Your task to perform on an android device: Open accessibility settings Image 0: 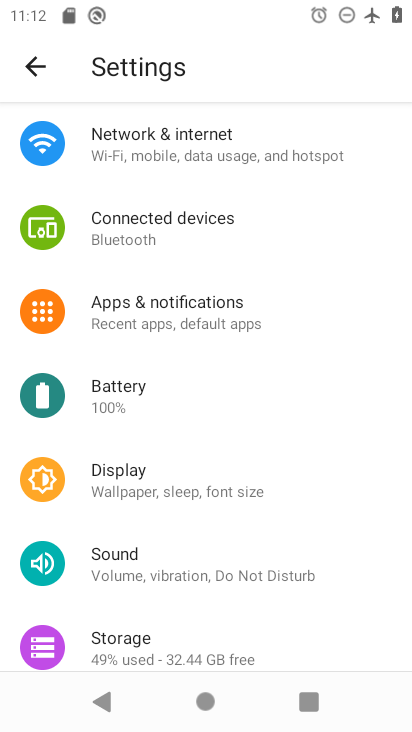
Step 0: drag from (150, 609) to (184, 208)
Your task to perform on an android device: Open accessibility settings Image 1: 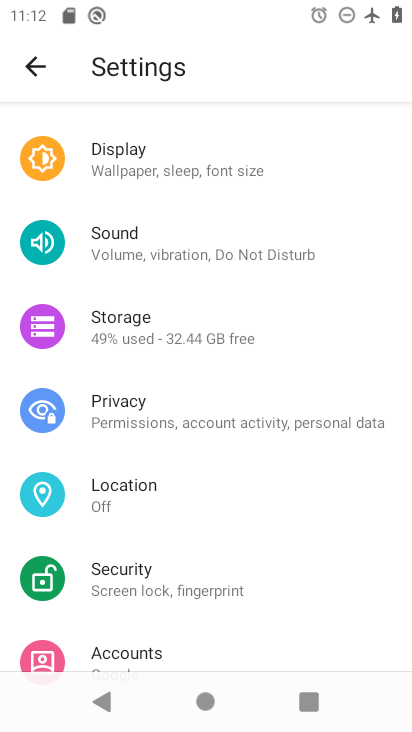
Step 1: drag from (198, 584) to (181, 226)
Your task to perform on an android device: Open accessibility settings Image 2: 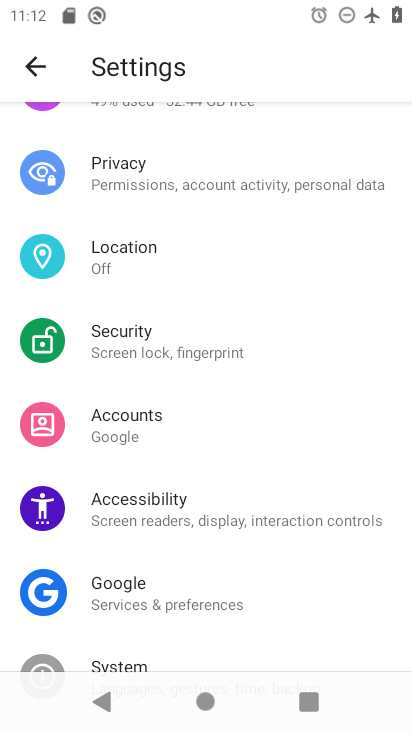
Step 2: click (173, 498)
Your task to perform on an android device: Open accessibility settings Image 3: 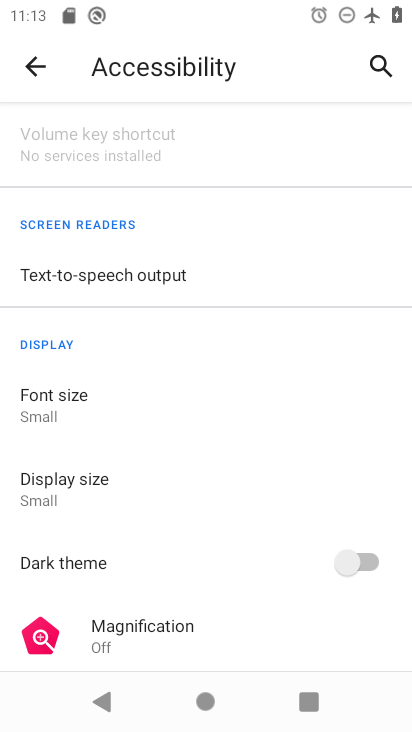
Step 3: task complete